Your task to perform on an android device: Go to display settings Image 0: 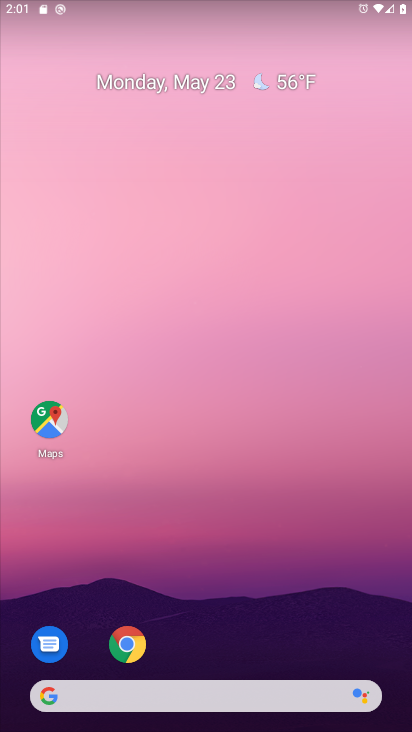
Step 0: drag from (206, 640) to (177, 184)
Your task to perform on an android device: Go to display settings Image 1: 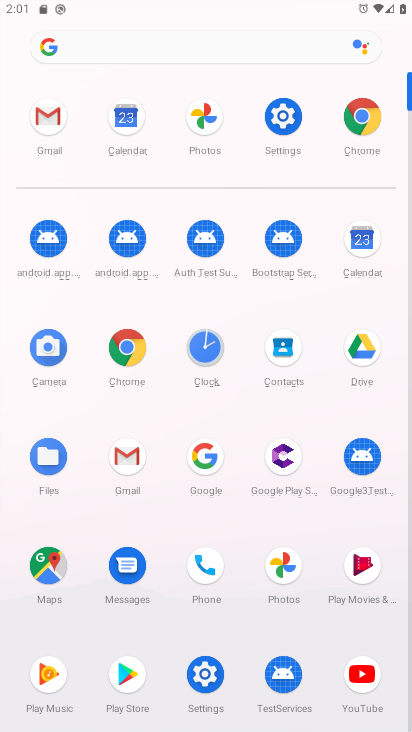
Step 1: click (282, 119)
Your task to perform on an android device: Go to display settings Image 2: 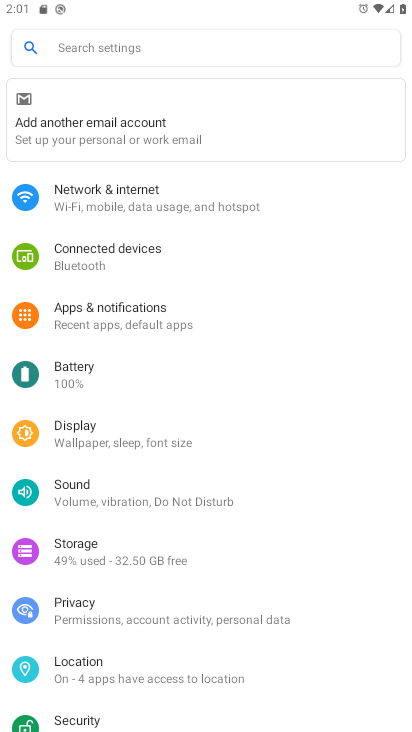
Step 2: click (75, 448)
Your task to perform on an android device: Go to display settings Image 3: 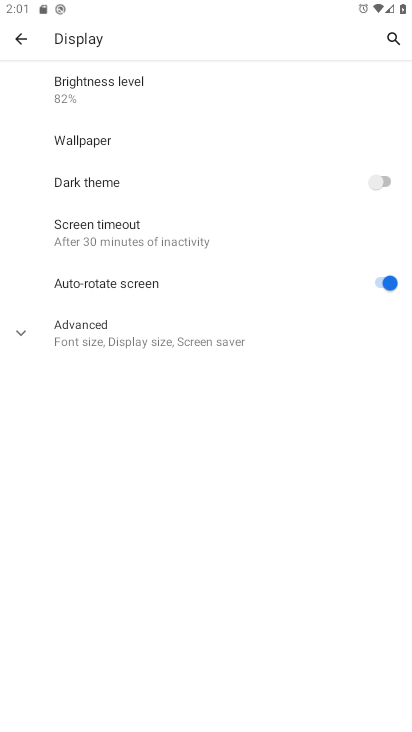
Step 3: task complete